Your task to perform on an android device: Is it going to rain today? Image 0: 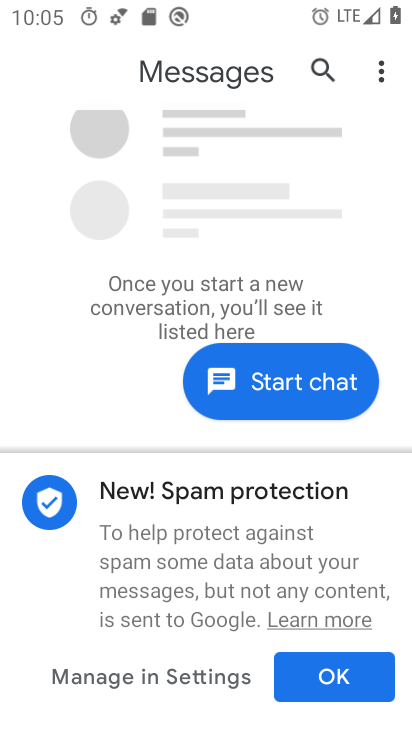
Step 0: press home button
Your task to perform on an android device: Is it going to rain today? Image 1: 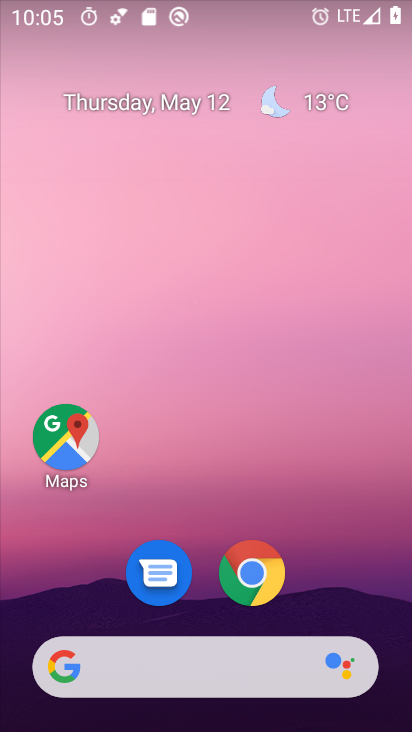
Step 1: click (333, 99)
Your task to perform on an android device: Is it going to rain today? Image 2: 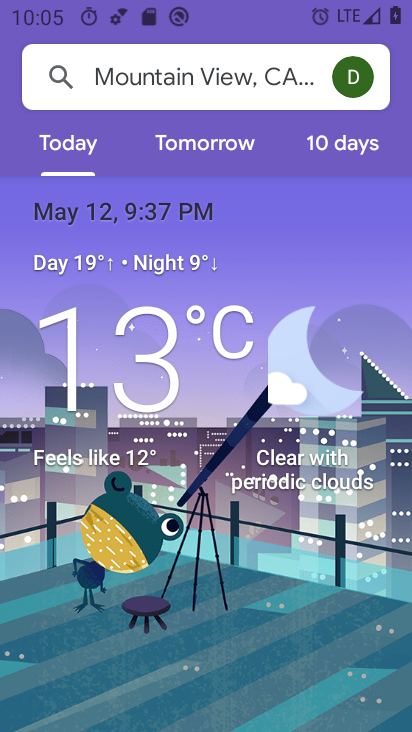
Step 2: task complete